Your task to perform on an android device: Open Google Maps and go to "Timeline" Image 0: 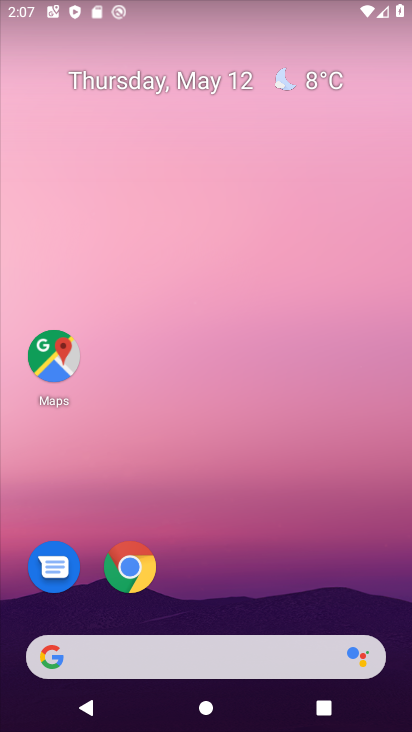
Step 0: drag from (213, 612) to (246, 126)
Your task to perform on an android device: Open Google Maps and go to "Timeline" Image 1: 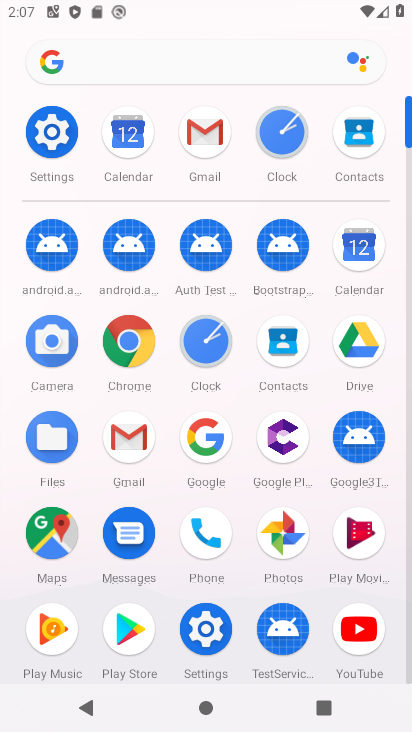
Step 1: click (49, 532)
Your task to perform on an android device: Open Google Maps and go to "Timeline" Image 2: 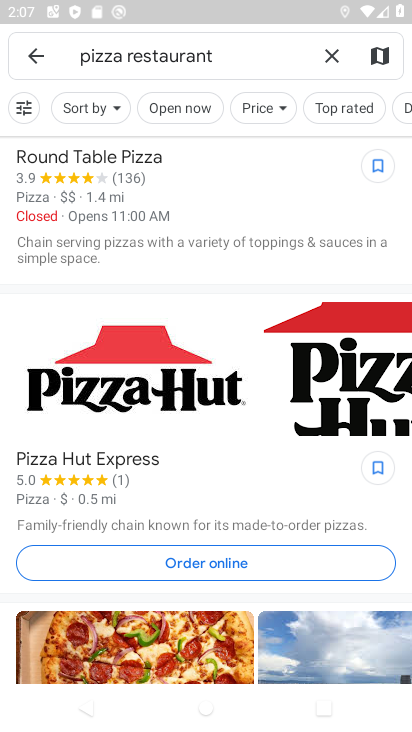
Step 2: click (329, 53)
Your task to perform on an android device: Open Google Maps and go to "Timeline" Image 3: 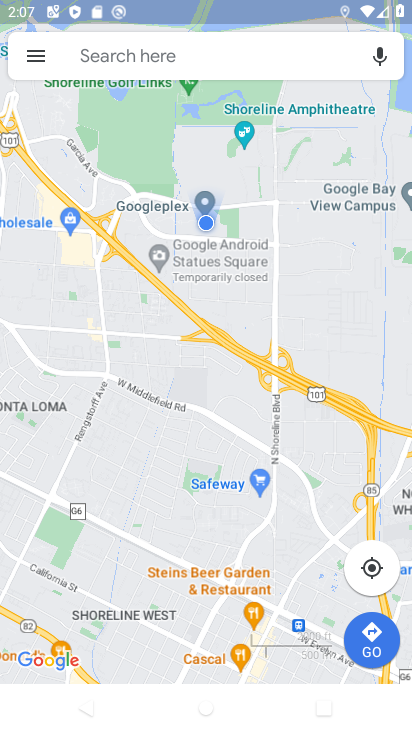
Step 3: click (36, 55)
Your task to perform on an android device: Open Google Maps and go to "Timeline" Image 4: 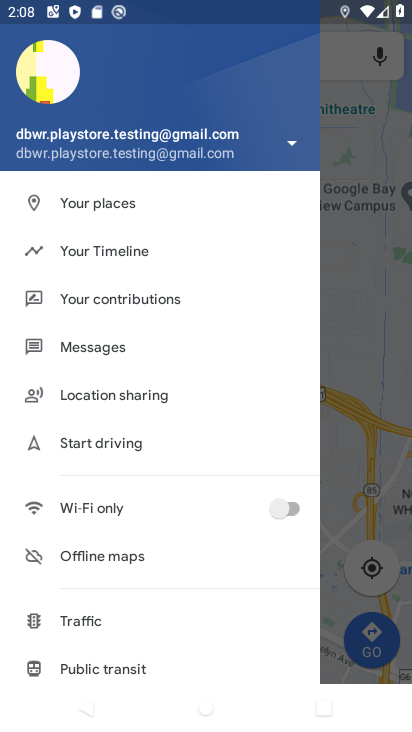
Step 4: click (98, 250)
Your task to perform on an android device: Open Google Maps and go to "Timeline" Image 5: 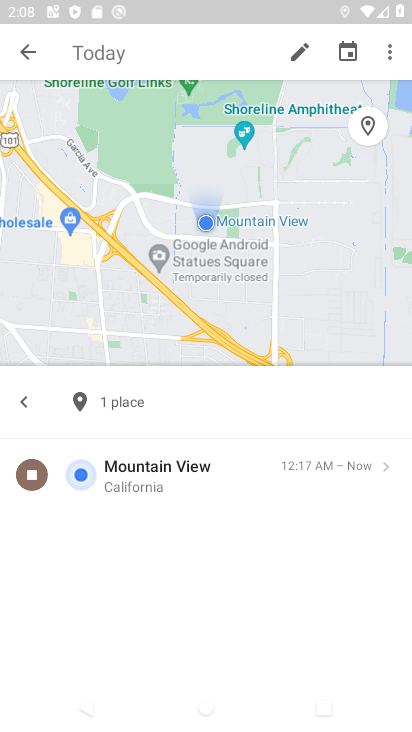
Step 5: task complete